Your task to perform on an android device: change the clock display to analog Image 0: 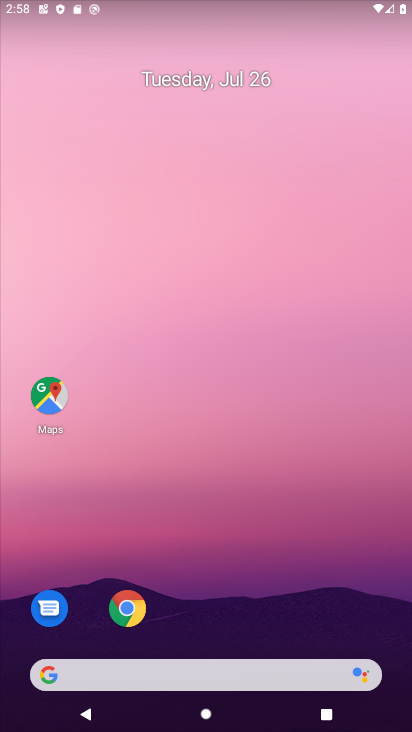
Step 0: task complete